Your task to perform on an android device: What's the weather today? Image 0: 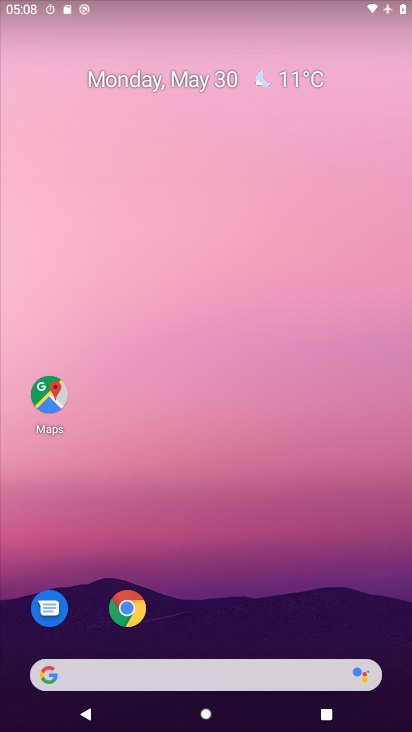
Step 0: click (300, 81)
Your task to perform on an android device: What's the weather today? Image 1: 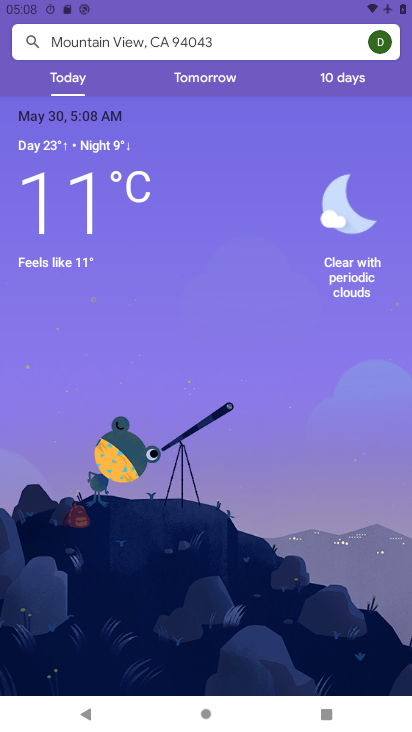
Step 1: task complete